Your task to perform on an android device: Search for Italian restaurants on Maps Image 0: 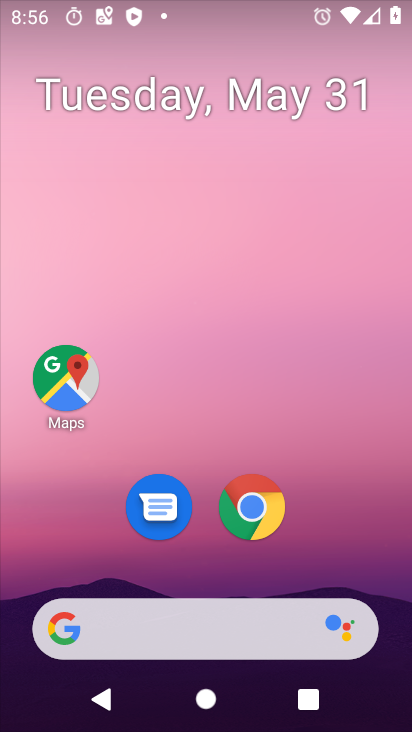
Step 0: click (64, 387)
Your task to perform on an android device: Search for Italian restaurants on Maps Image 1: 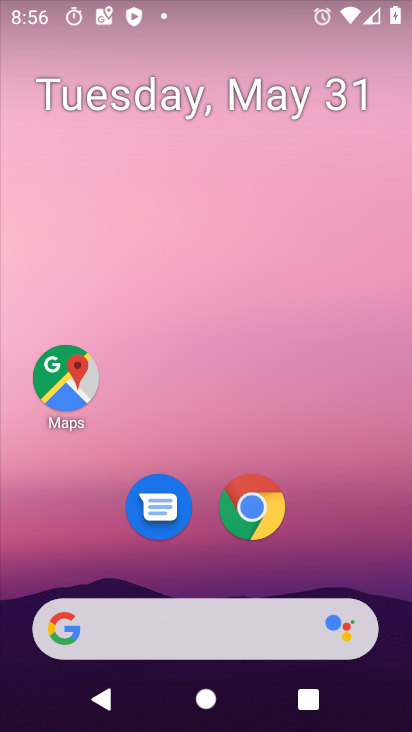
Step 1: click (64, 387)
Your task to perform on an android device: Search for Italian restaurants on Maps Image 2: 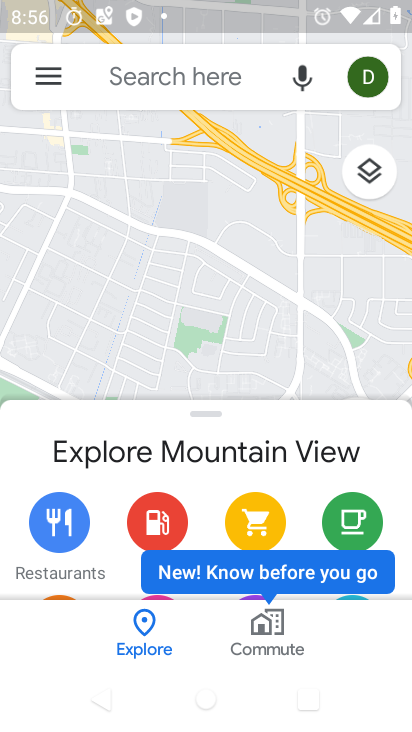
Step 2: click (117, 79)
Your task to perform on an android device: Search for Italian restaurants on Maps Image 3: 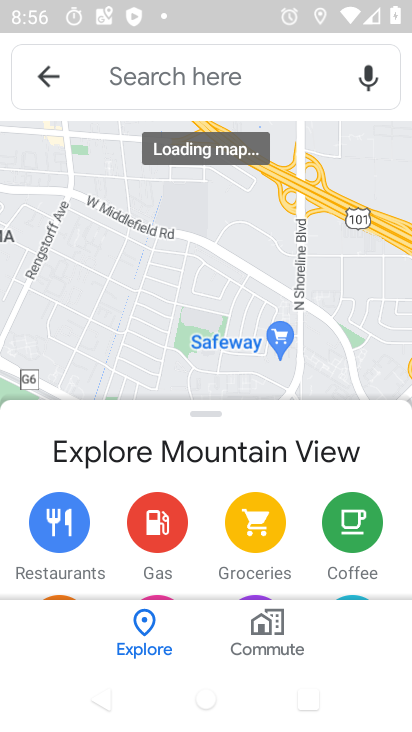
Step 3: click (117, 79)
Your task to perform on an android device: Search for Italian restaurants on Maps Image 4: 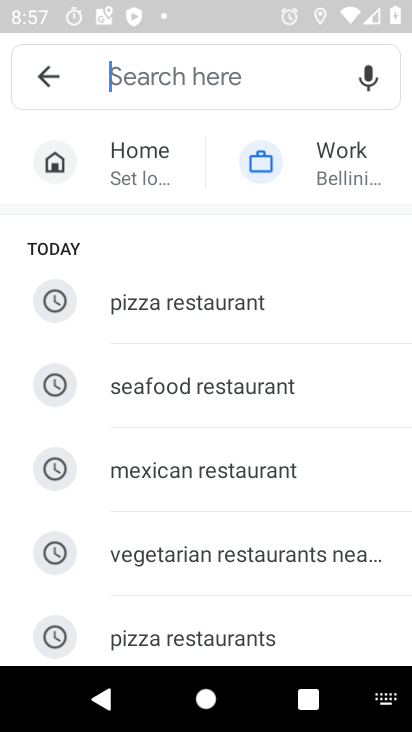
Step 4: type "italian restaurants"
Your task to perform on an android device: Search for Italian restaurants on Maps Image 5: 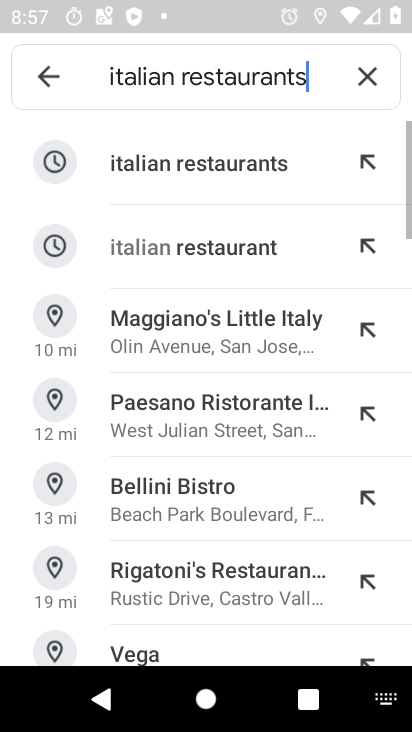
Step 5: click (225, 164)
Your task to perform on an android device: Search for Italian restaurants on Maps Image 6: 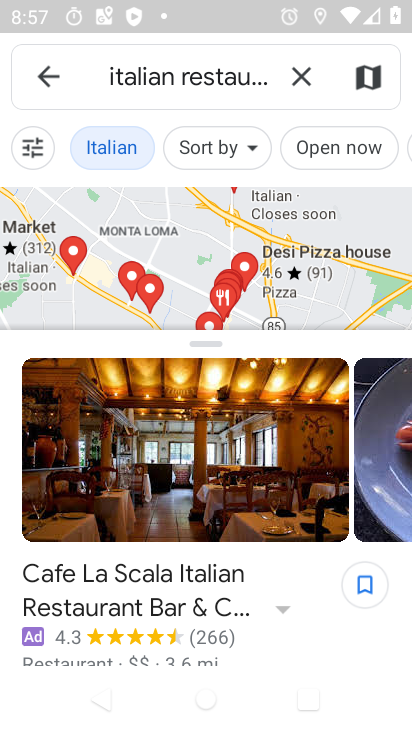
Step 6: task complete